Your task to perform on an android device: Open battery settings Image 0: 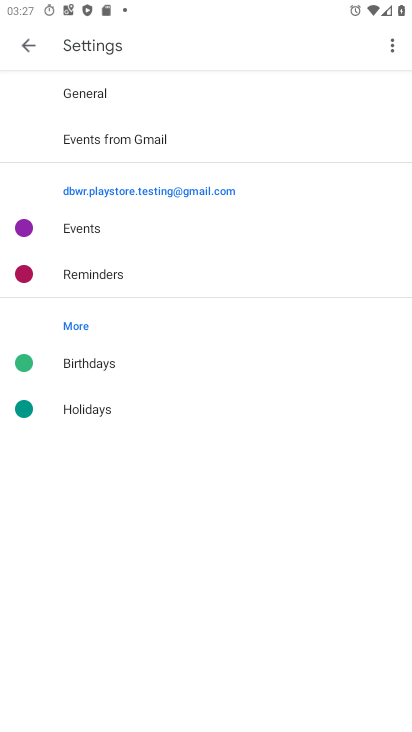
Step 0: press home button
Your task to perform on an android device: Open battery settings Image 1: 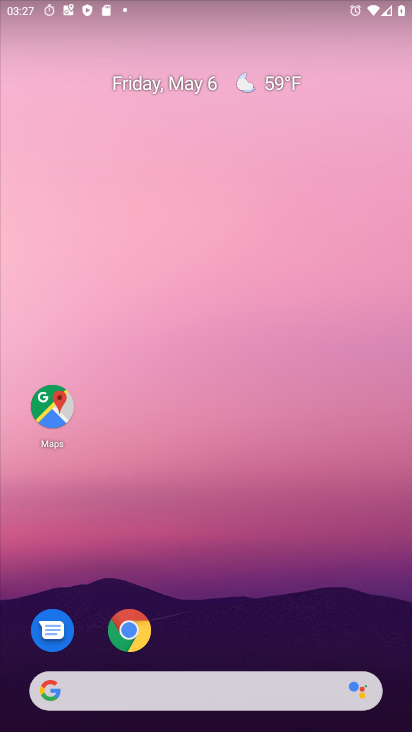
Step 1: drag from (211, 621) to (256, 258)
Your task to perform on an android device: Open battery settings Image 2: 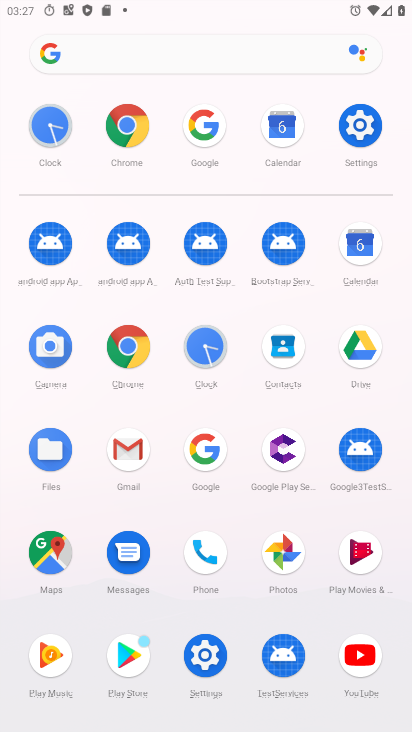
Step 2: click (349, 146)
Your task to perform on an android device: Open battery settings Image 3: 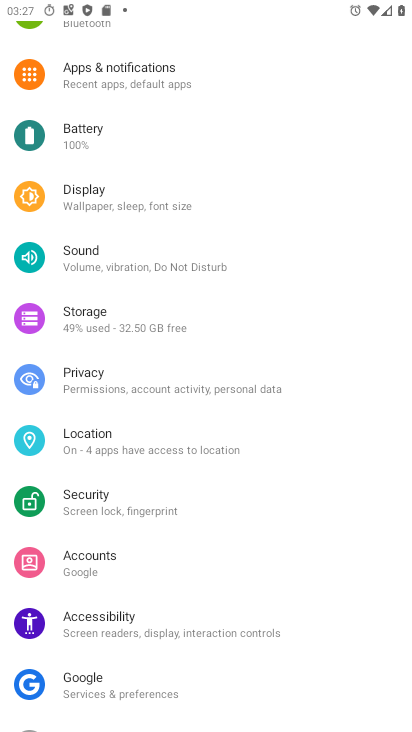
Step 3: click (142, 138)
Your task to perform on an android device: Open battery settings Image 4: 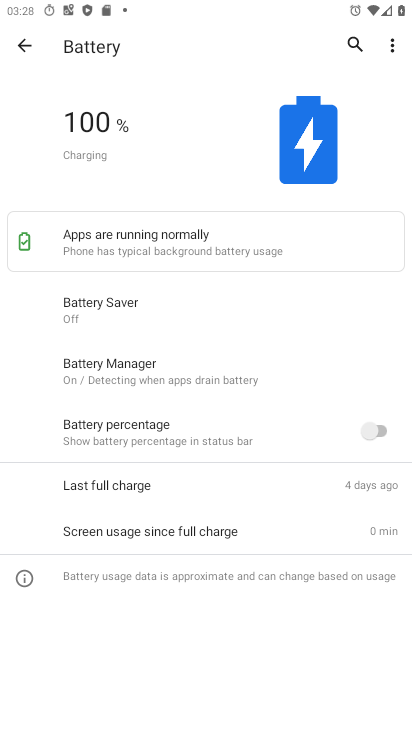
Step 4: task complete